Your task to perform on an android device: stop showing notifications on the lock screen Image 0: 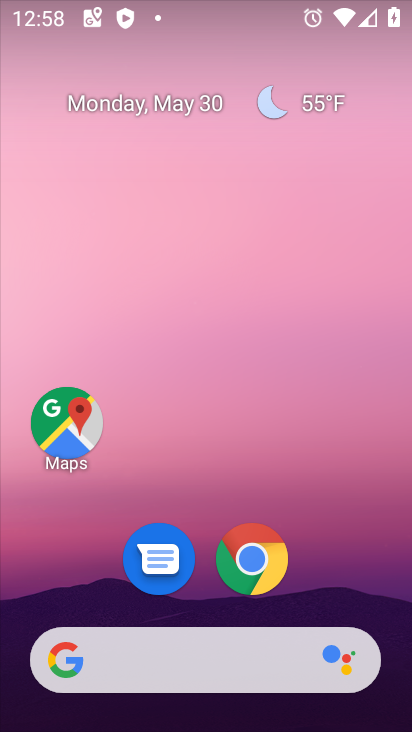
Step 0: drag from (185, 470) to (250, 69)
Your task to perform on an android device: stop showing notifications on the lock screen Image 1: 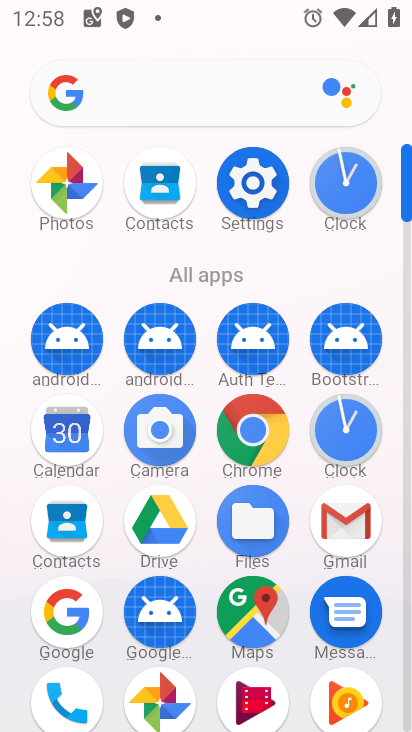
Step 1: click (257, 221)
Your task to perform on an android device: stop showing notifications on the lock screen Image 2: 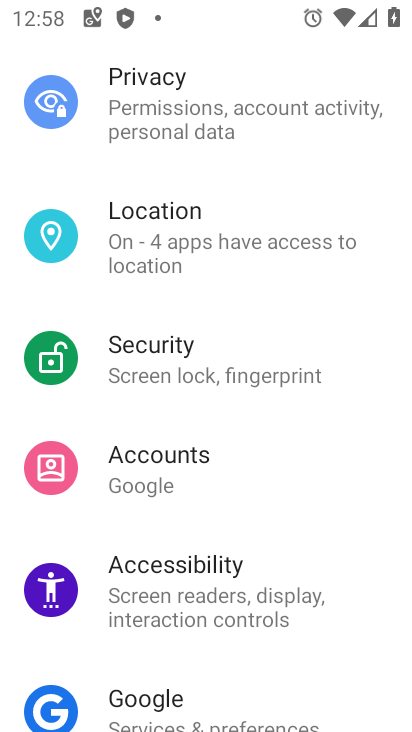
Step 2: drag from (255, 169) to (148, 723)
Your task to perform on an android device: stop showing notifications on the lock screen Image 3: 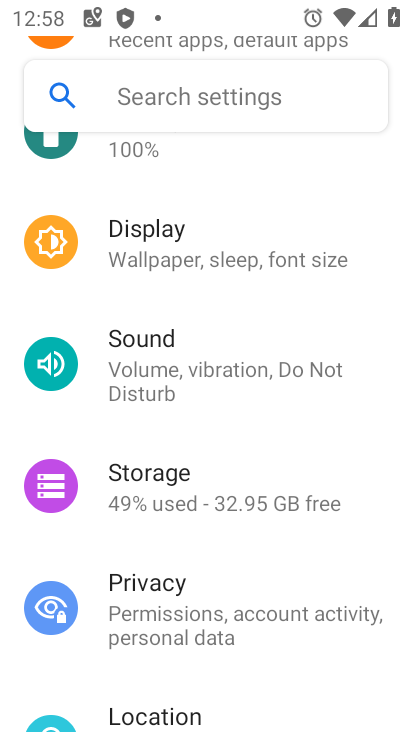
Step 3: drag from (251, 225) to (198, 706)
Your task to perform on an android device: stop showing notifications on the lock screen Image 4: 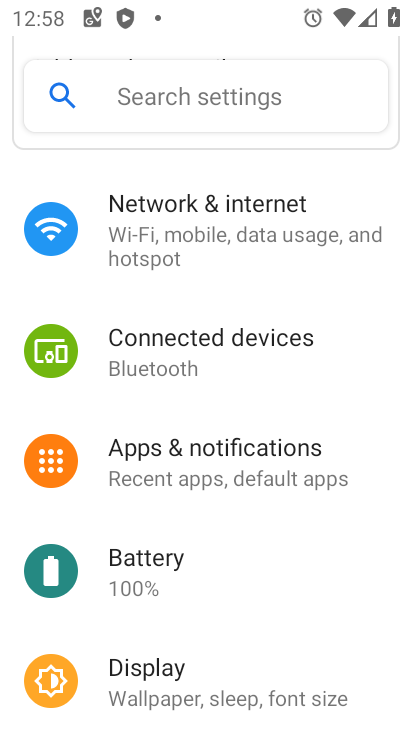
Step 4: click (174, 463)
Your task to perform on an android device: stop showing notifications on the lock screen Image 5: 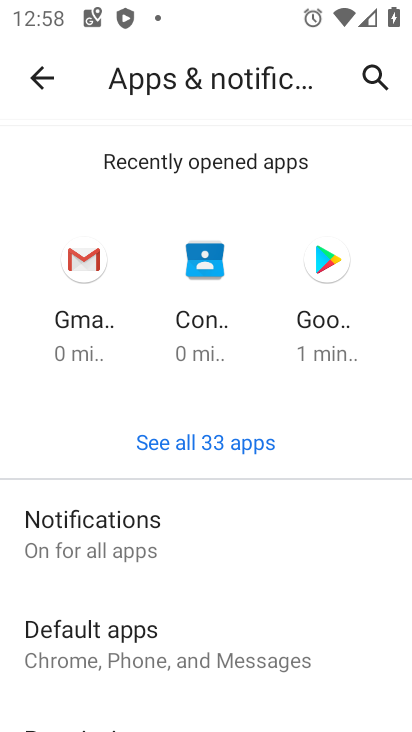
Step 5: click (144, 523)
Your task to perform on an android device: stop showing notifications on the lock screen Image 6: 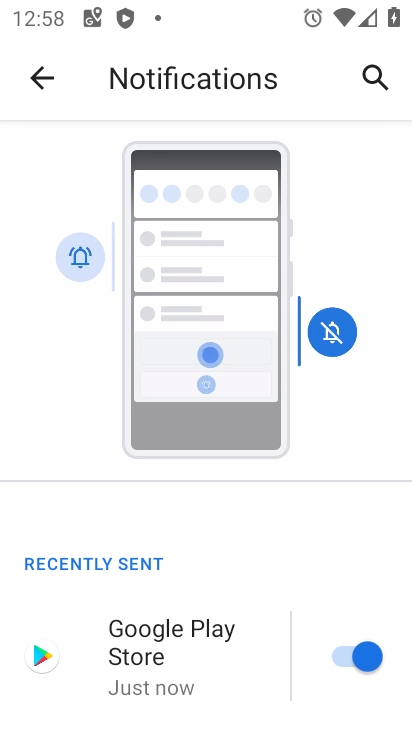
Step 6: drag from (166, 545) to (229, 101)
Your task to perform on an android device: stop showing notifications on the lock screen Image 7: 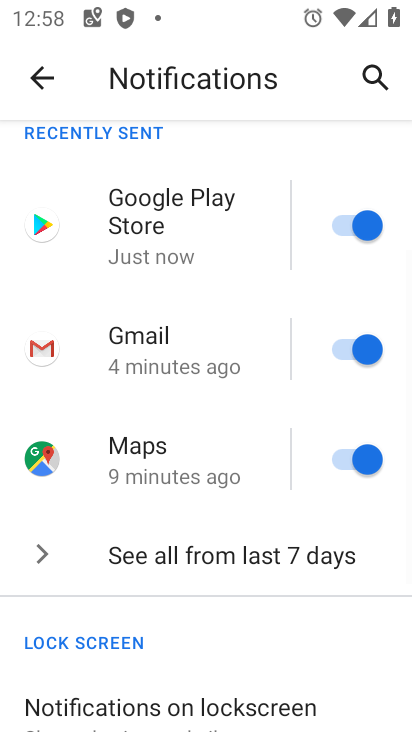
Step 7: drag from (154, 640) to (184, 130)
Your task to perform on an android device: stop showing notifications on the lock screen Image 8: 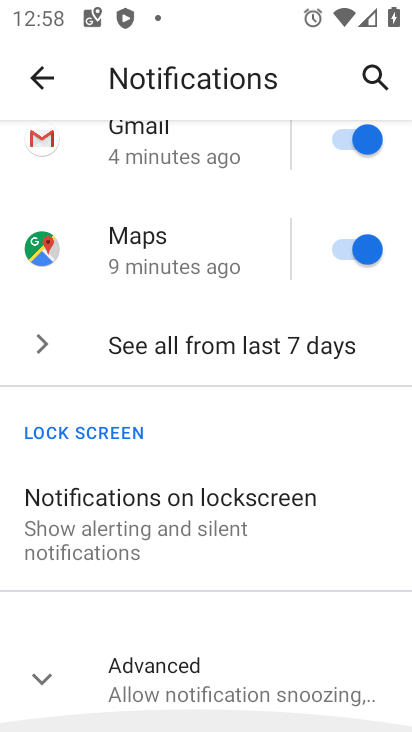
Step 8: click (85, 526)
Your task to perform on an android device: stop showing notifications on the lock screen Image 9: 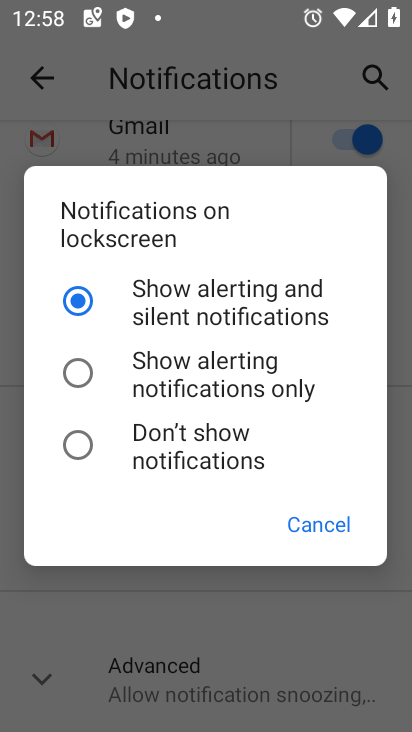
Step 9: click (71, 436)
Your task to perform on an android device: stop showing notifications on the lock screen Image 10: 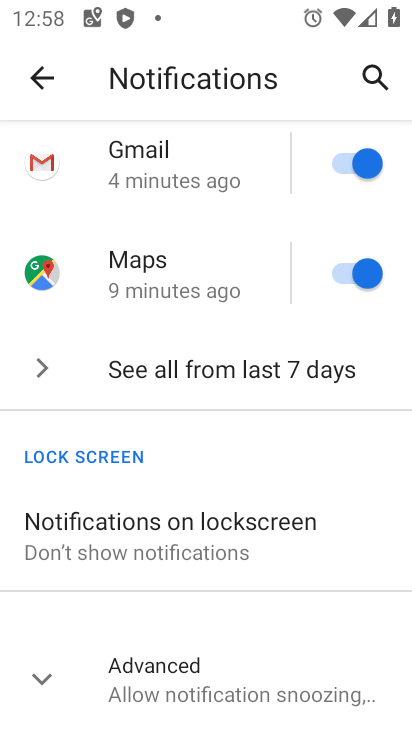
Step 10: task complete